Your task to perform on an android device: Open the calendar app, open the side menu, and click the "Day" option Image 0: 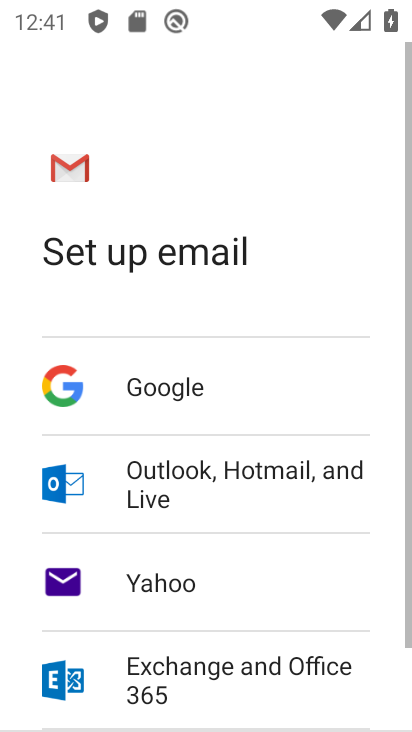
Step 0: press home button
Your task to perform on an android device: Open the calendar app, open the side menu, and click the "Day" option Image 1: 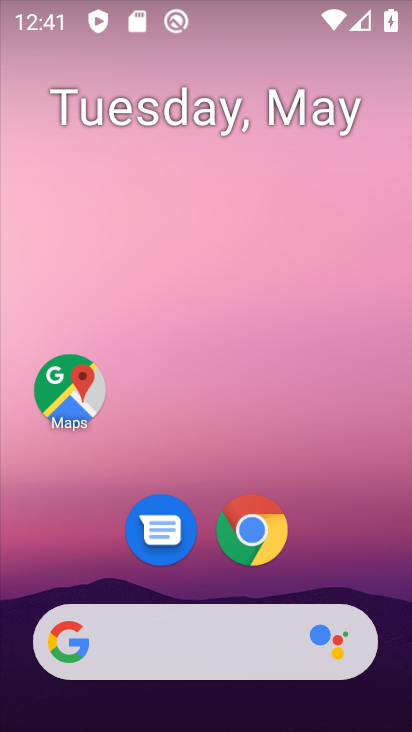
Step 1: drag from (188, 593) to (214, 148)
Your task to perform on an android device: Open the calendar app, open the side menu, and click the "Day" option Image 2: 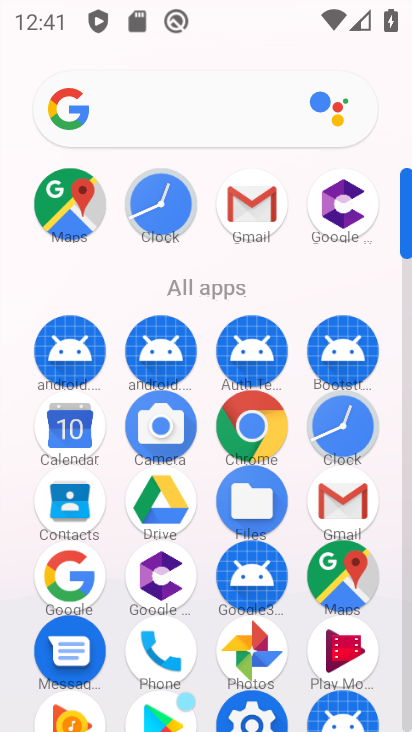
Step 2: click (77, 442)
Your task to perform on an android device: Open the calendar app, open the side menu, and click the "Day" option Image 3: 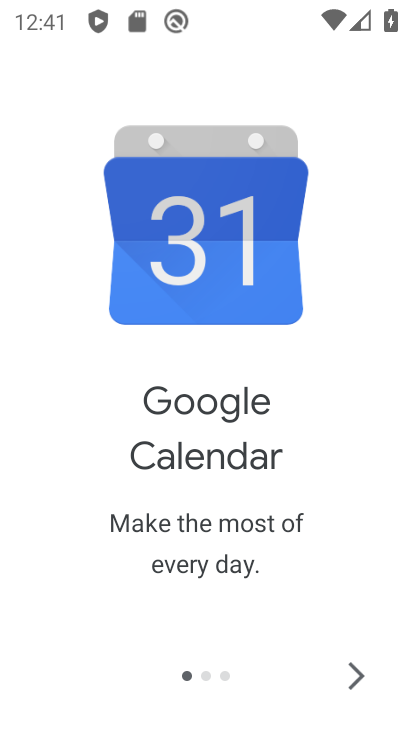
Step 3: click (362, 667)
Your task to perform on an android device: Open the calendar app, open the side menu, and click the "Day" option Image 4: 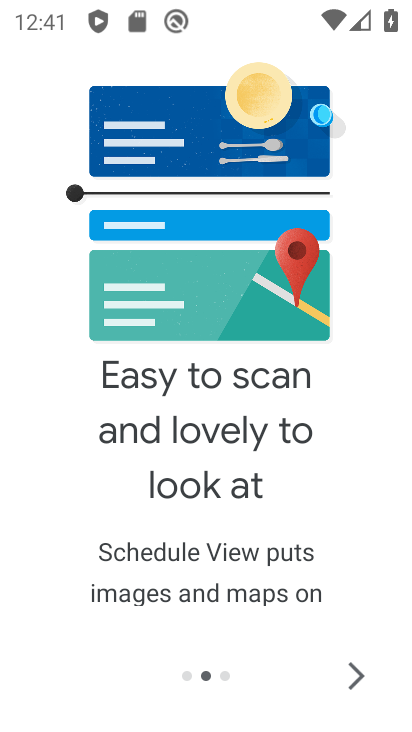
Step 4: click (363, 671)
Your task to perform on an android device: Open the calendar app, open the side menu, and click the "Day" option Image 5: 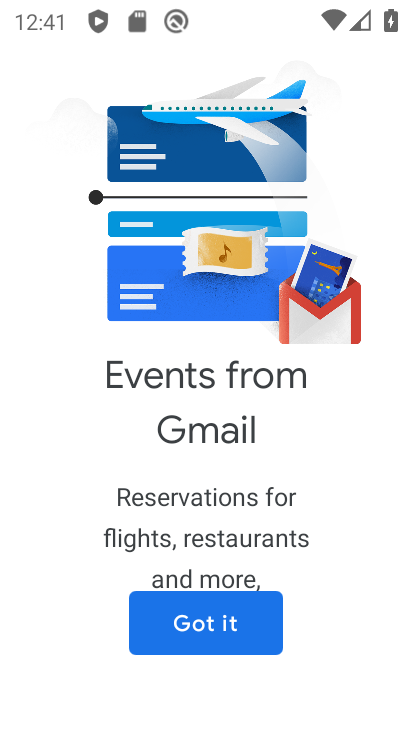
Step 5: click (203, 633)
Your task to perform on an android device: Open the calendar app, open the side menu, and click the "Day" option Image 6: 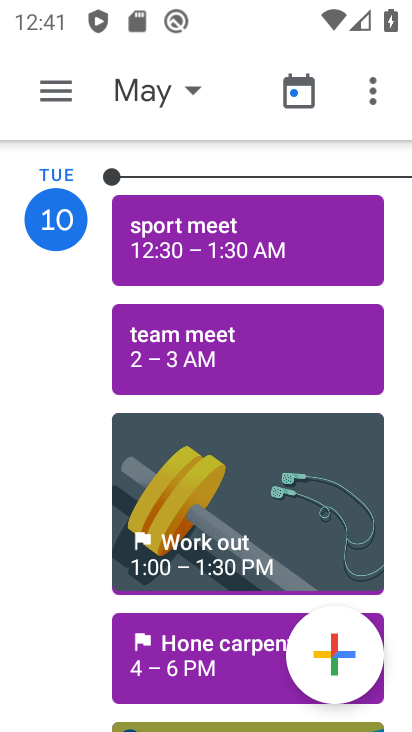
Step 6: click (48, 100)
Your task to perform on an android device: Open the calendar app, open the side menu, and click the "Day" option Image 7: 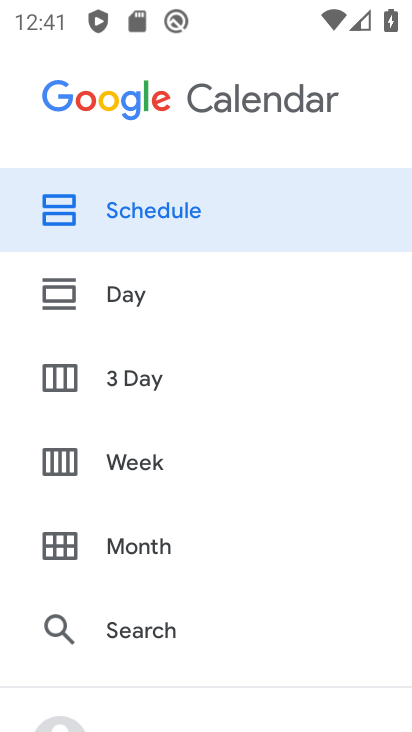
Step 7: click (137, 305)
Your task to perform on an android device: Open the calendar app, open the side menu, and click the "Day" option Image 8: 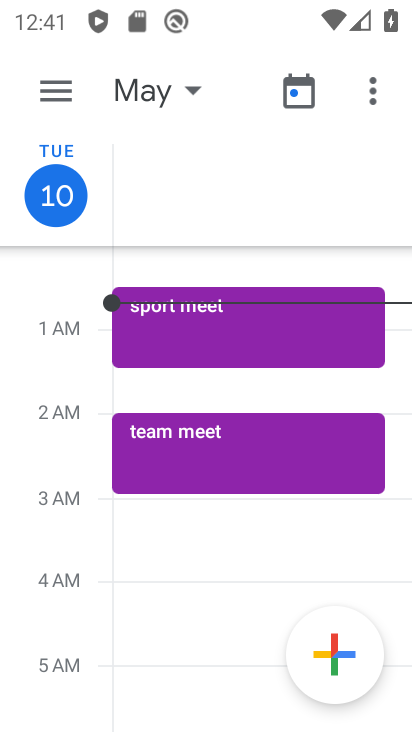
Step 8: task complete